Your task to perform on an android device: Turn off the flashlight Image 0: 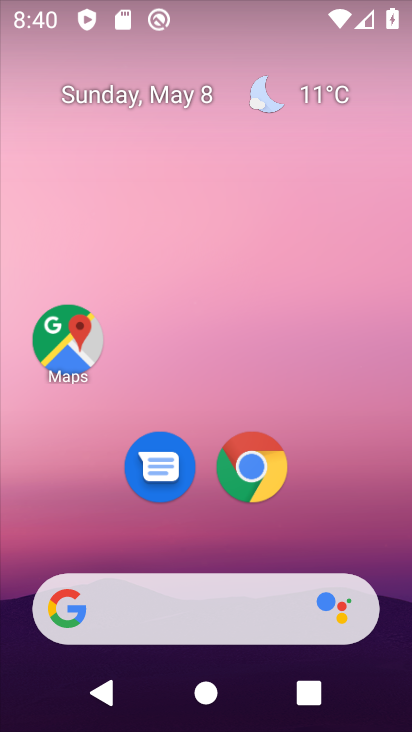
Step 0: drag from (192, 538) to (219, 45)
Your task to perform on an android device: Turn off the flashlight Image 1: 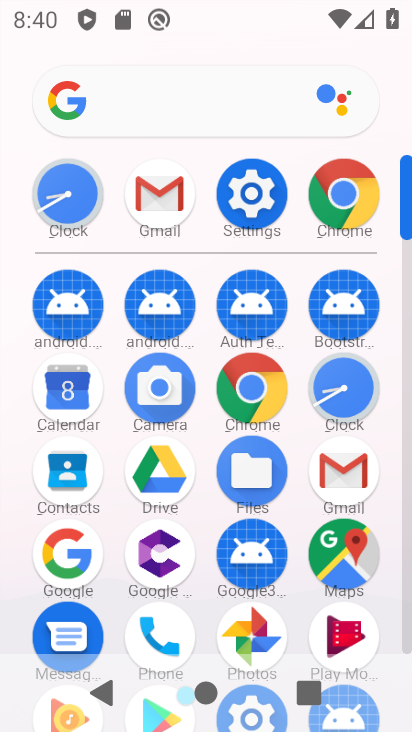
Step 1: click (257, 183)
Your task to perform on an android device: Turn off the flashlight Image 2: 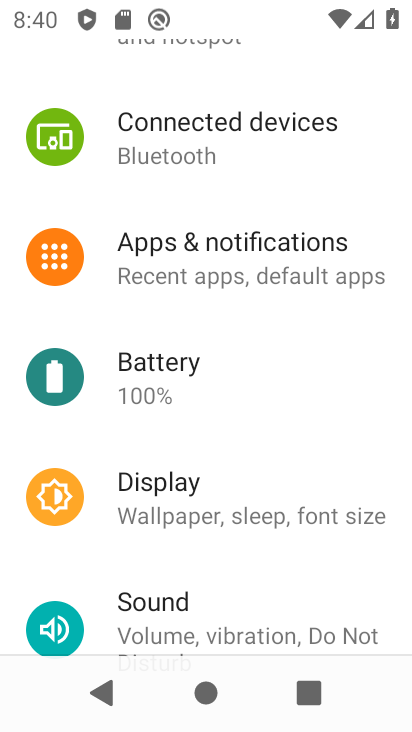
Step 2: drag from (217, 159) to (219, 658)
Your task to perform on an android device: Turn off the flashlight Image 3: 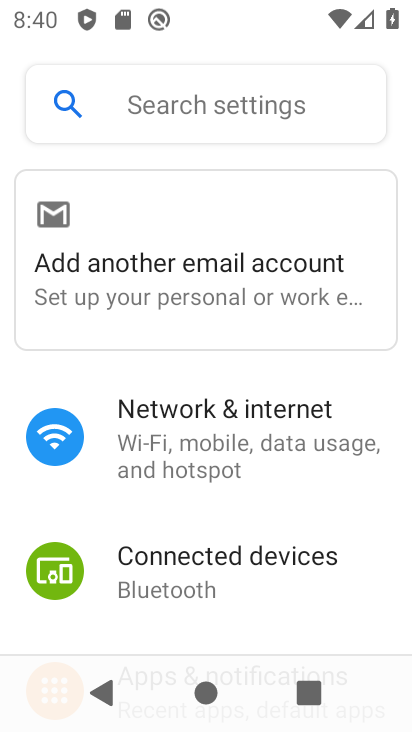
Step 3: click (148, 91)
Your task to perform on an android device: Turn off the flashlight Image 4: 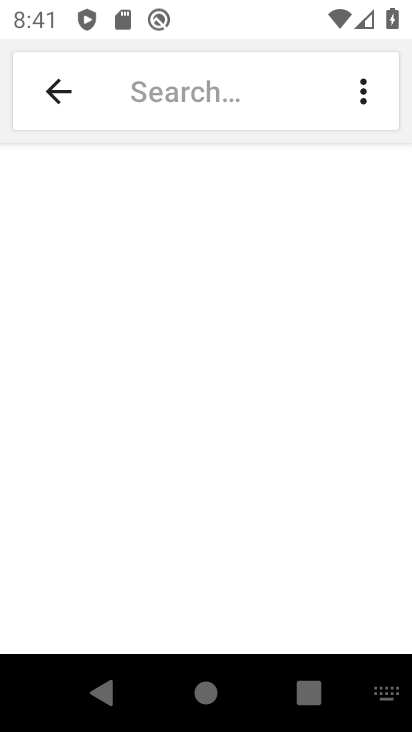
Step 4: type "flashlight"
Your task to perform on an android device: Turn off the flashlight Image 5: 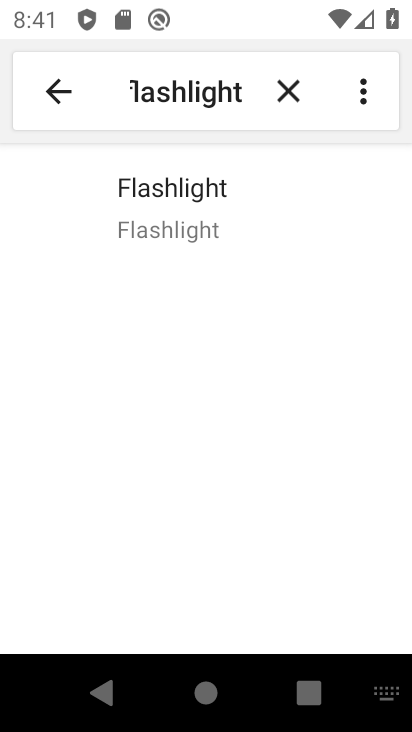
Step 5: click (195, 215)
Your task to perform on an android device: Turn off the flashlight Image 6: 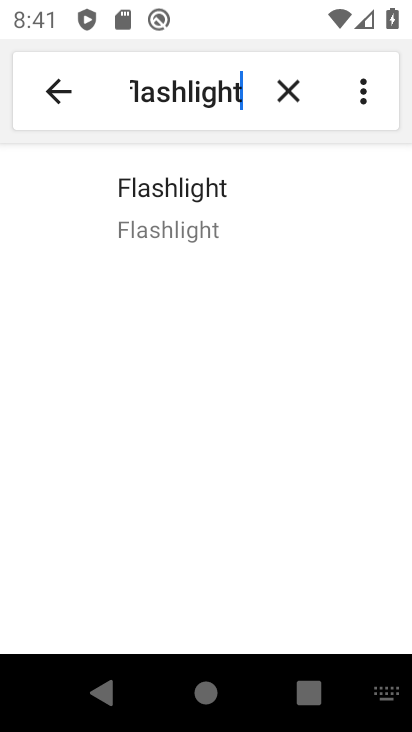
Step 6: task complete